Your task to perform on an android device: turn on javascript in the chrome app Image 0: 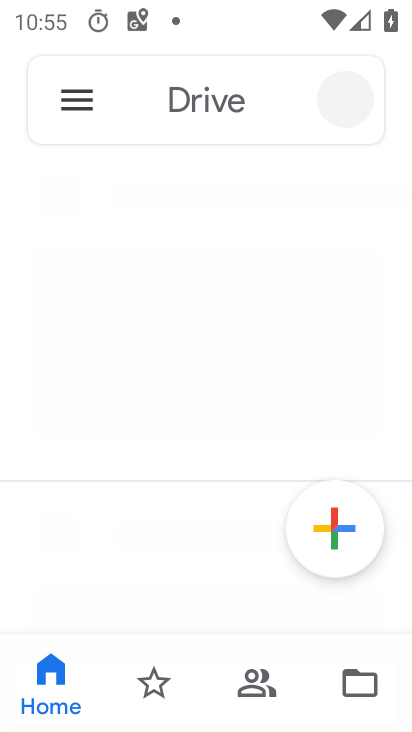
Step 0: drag from (396, 701) to (396, 280)
Your task to perform on an android device: turn on javascript in the chrome app Image 1: 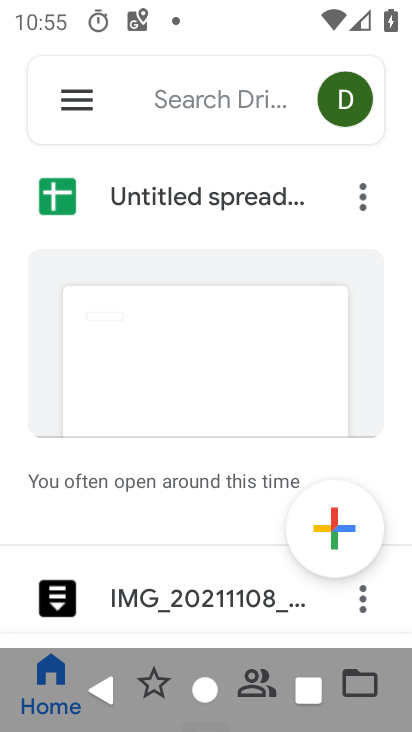
Step 1: press home button
Your task to perform on an android device: turn on javascript in the chrome app Image 2: 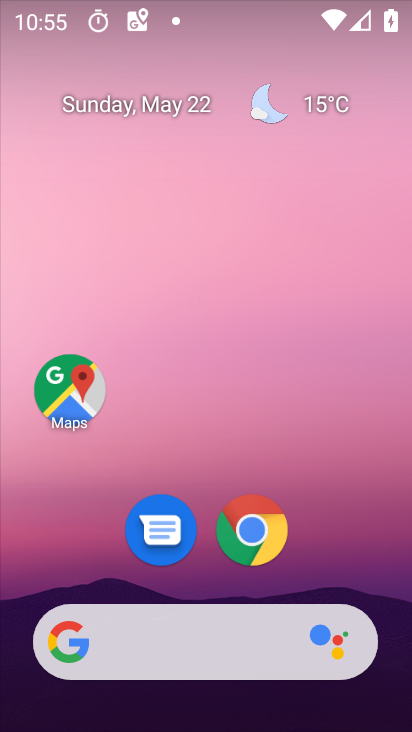
Step 2: click (249, 529)
Your task to perform on an android device: turn on javascript in the chrome app Image 3: 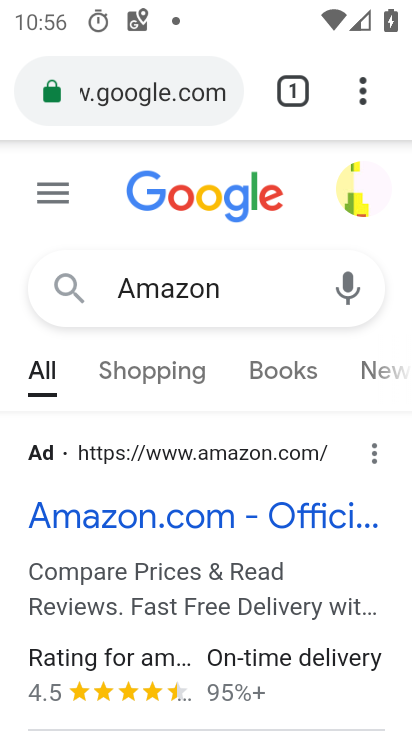
Step 3: click (364, 89)
Your task to perform on an android device: turn on javascript in the chrome app Image 4: 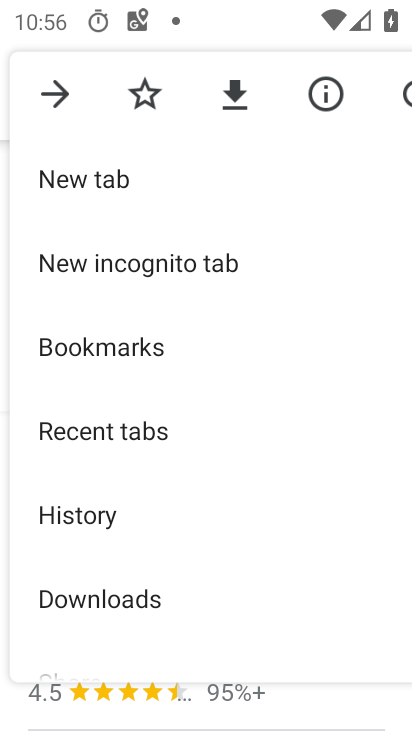
Step 4: drag from (261, 617) to (282, 315)
Your task to perform on an android device: turn on javascript in the chrome app Image 5: 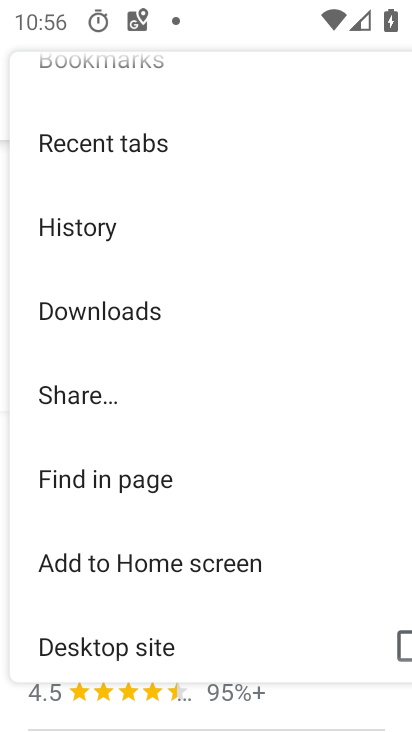
Step 5: drag from (299, 590) to (310, 372)
Your task to perform on an android device: turn on javascript in the chrome app Image 6: 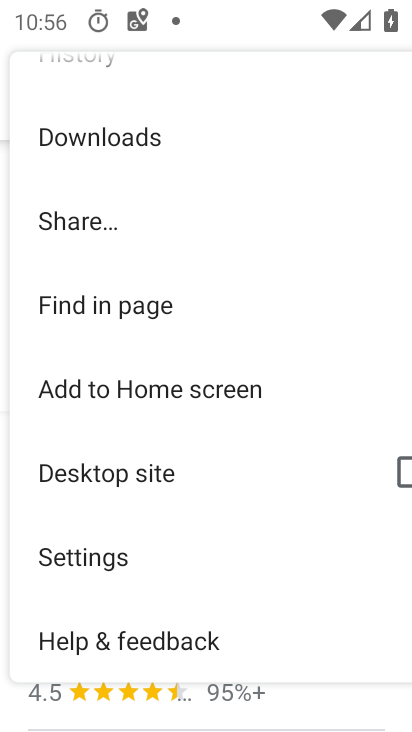
Step 6: click (107, 568)
Your task to perform on an android device: turn on javascript in the chrome app Image 7: 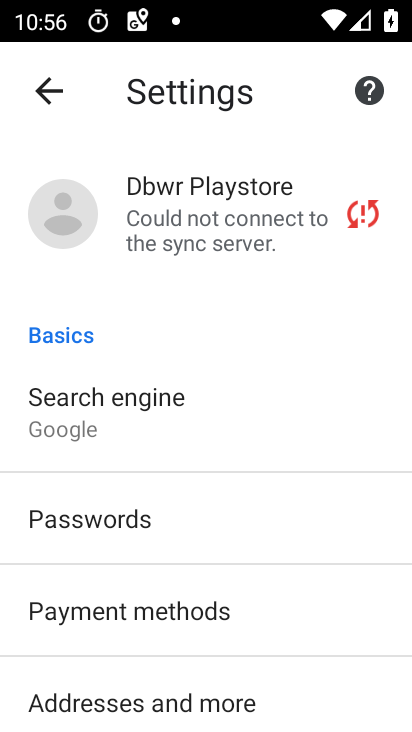
Step 7: drag from (311, 686) to (321, 401)
Your task to perform on an android device: turn on javascript in the chrome app Image 8: 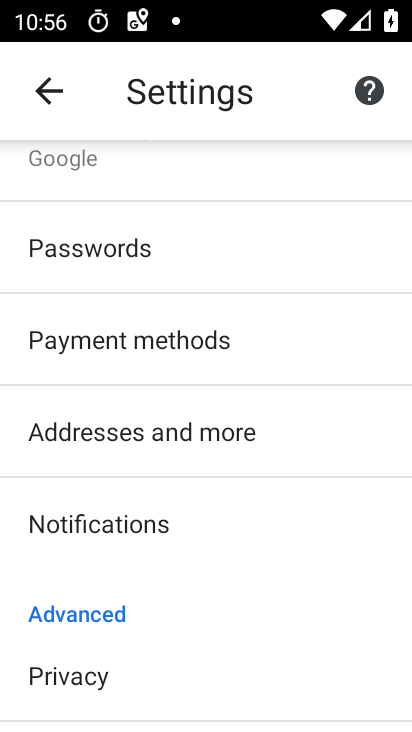
Step 8: drag from (284, 672) to (278, 431)
Your task to perform on an android device: turn on javascript in the chrome app Image 9: 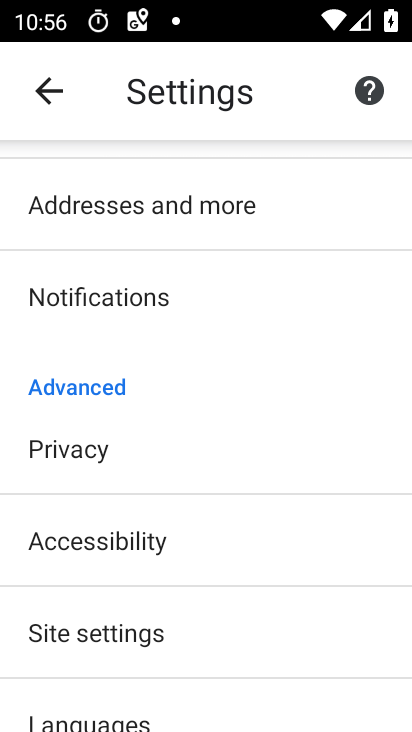
Step 9: click (121, 632)
Your task to perform on an android device: turn on javascript in the chrome app Image 10: 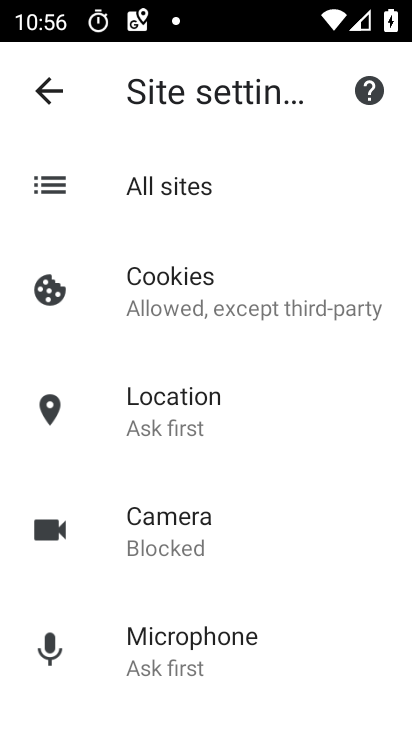
Step 10: drag from (304, 665) to (294, 345)
Your task to perform on an android device: turn on javascript in the chrome app Image 11: 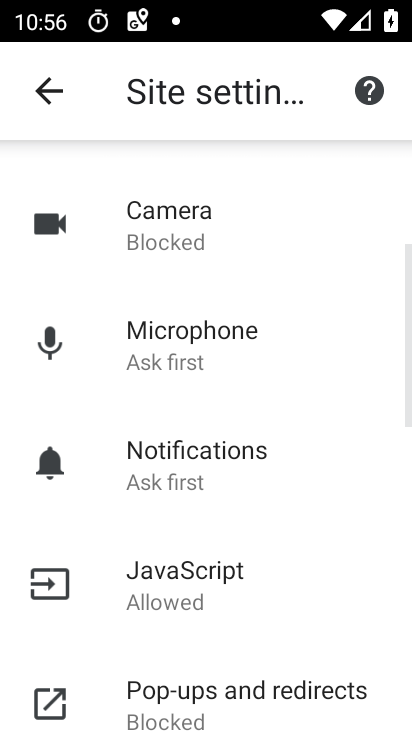
Step 11: drag from (317, 638) to (307, 341)
Your task to perform on an android device: turn on javascript in the chrome app Image 12: 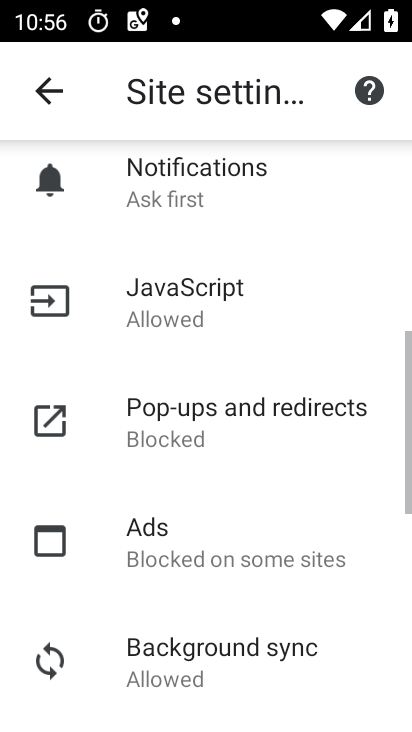
Step 12: click (171, 308)
Your task to perform on an android device: turn on javascript in the chrome app Image 13: 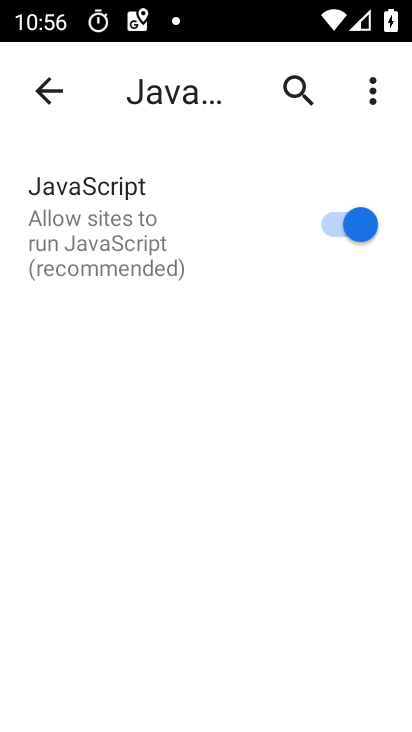
Step 13: task complete